Your task to perform on an android device: Search for sony triple a on ebay, select the first entry, add it to the cart, then select checkout. Image 0: 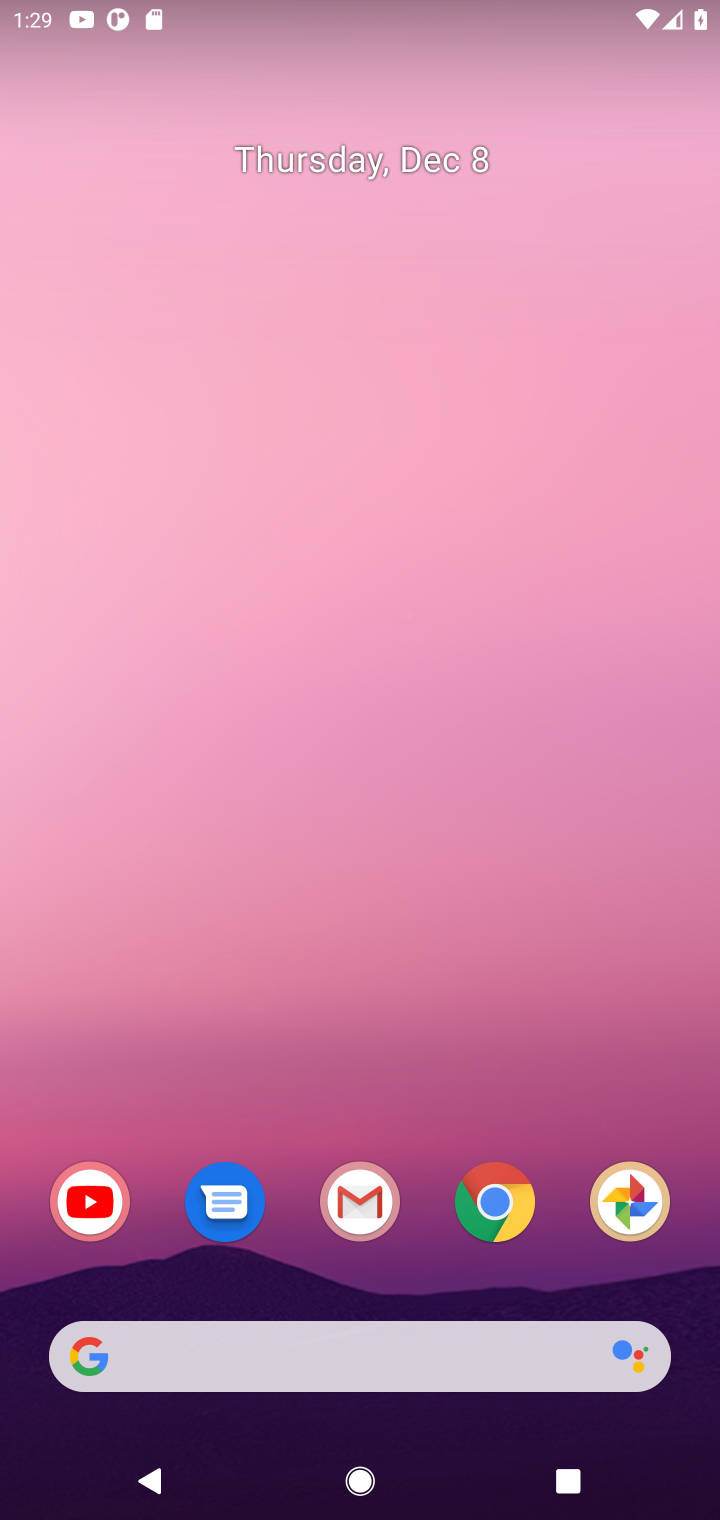
Step 0: click (484, 1219)
Your task to perform on an android device: Search for sony triple a on ebay, select the first entry, add it to the cart, then select checkout. Image 1: 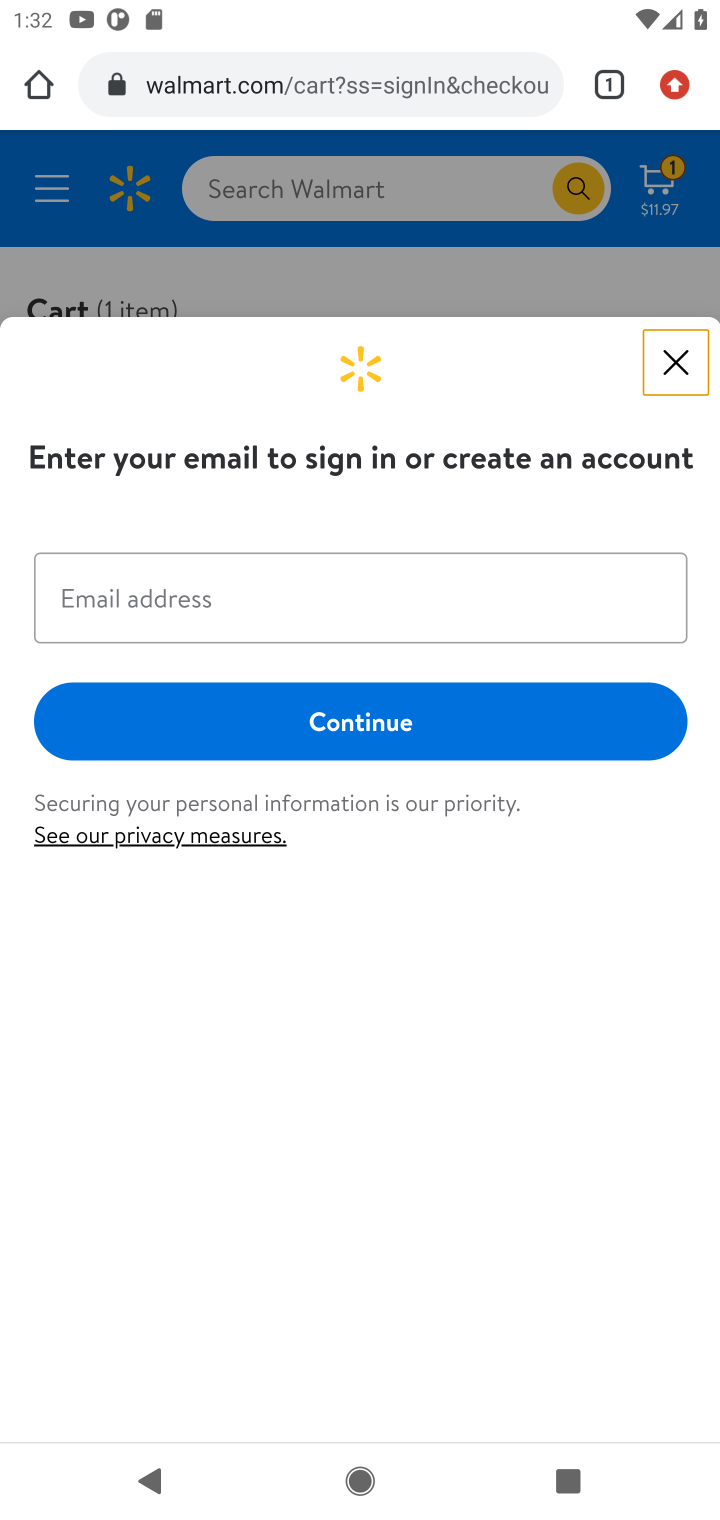
Step 1: press home button
Your task to perform on an android device: Search for sony triple a on ebay, select the first entry, add it to the cart, then select checkout. Image 2: 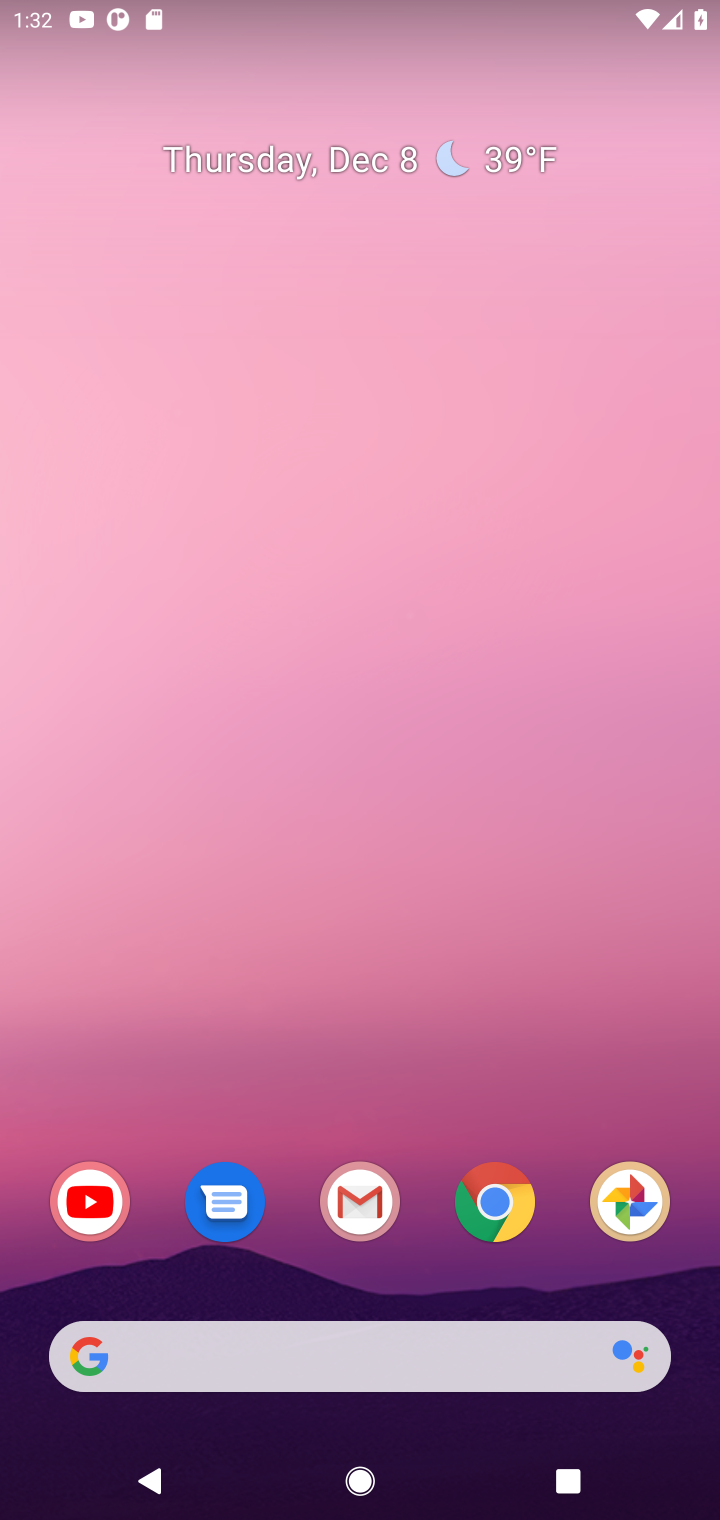
Step 2: click (506, 1207)
Your task to perform on an android device: Search for sony triple a on ebay, select the first entry, add it to the cart, then select checkout. Image 3: 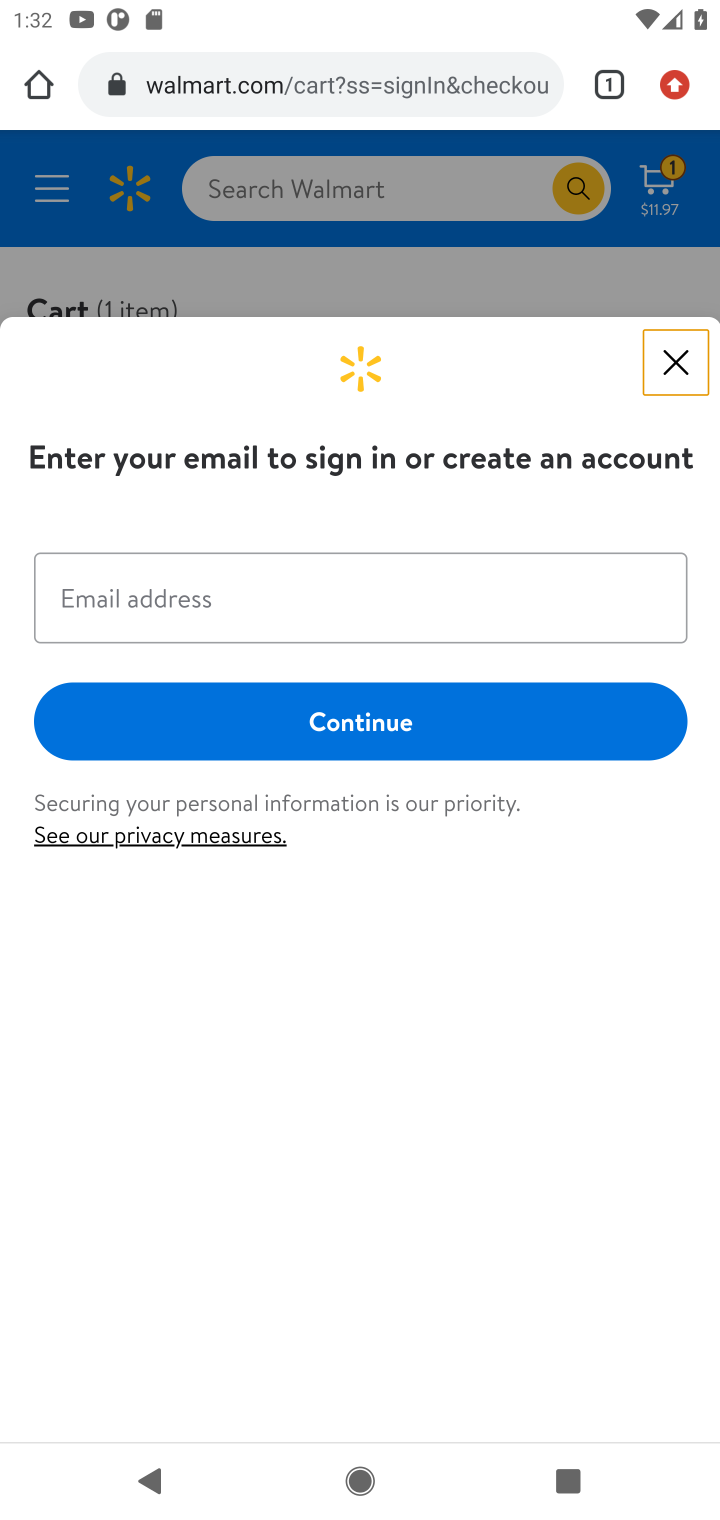
Step 3: click (481, 89)
Your task to perform on an android device: Search for sony triple a on ebay, select the first entry, add it to the cart, then select checkout. Image 4: 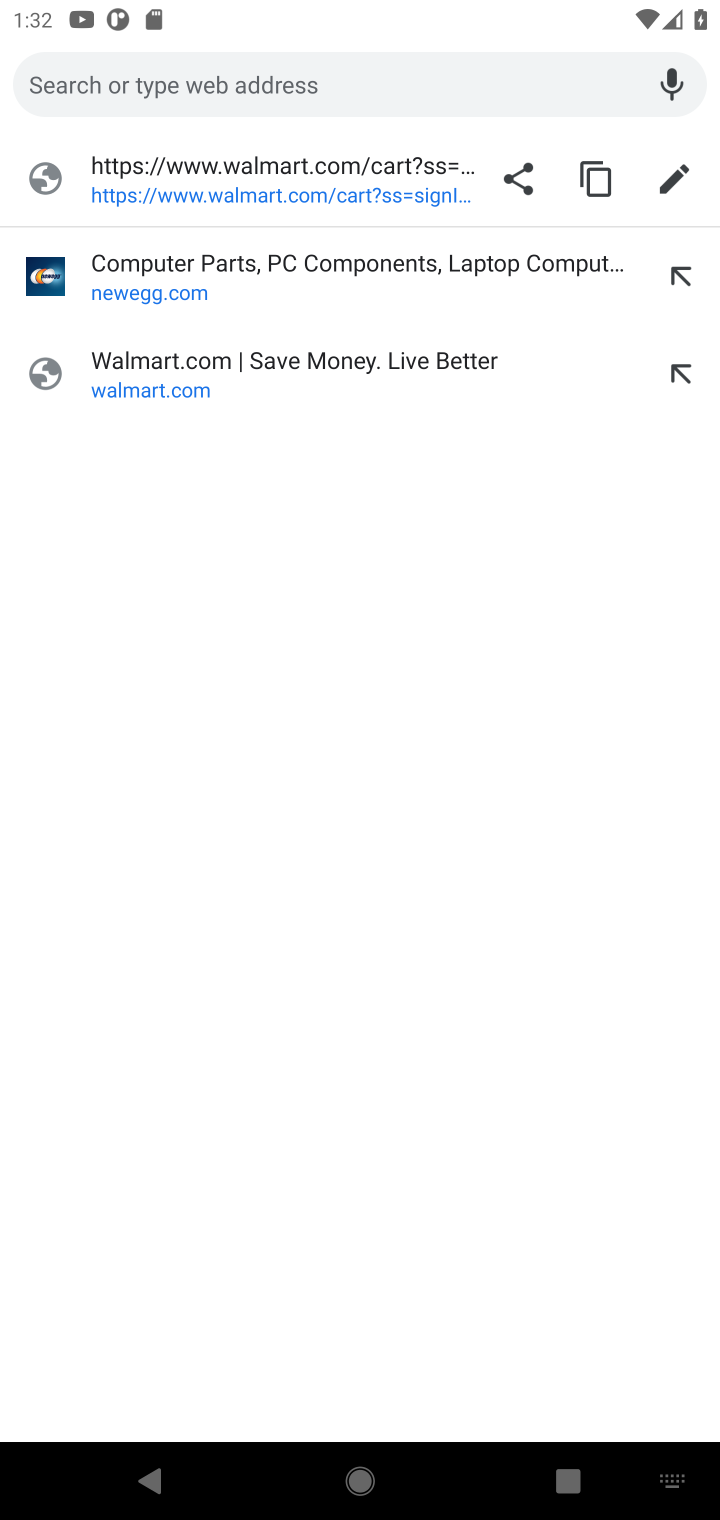
Step 4: type "ebay"
Your task to perform on an android device: Search for sony triple a on ebay, select the first entry, add it to the cart, then select checkout. Image 5: 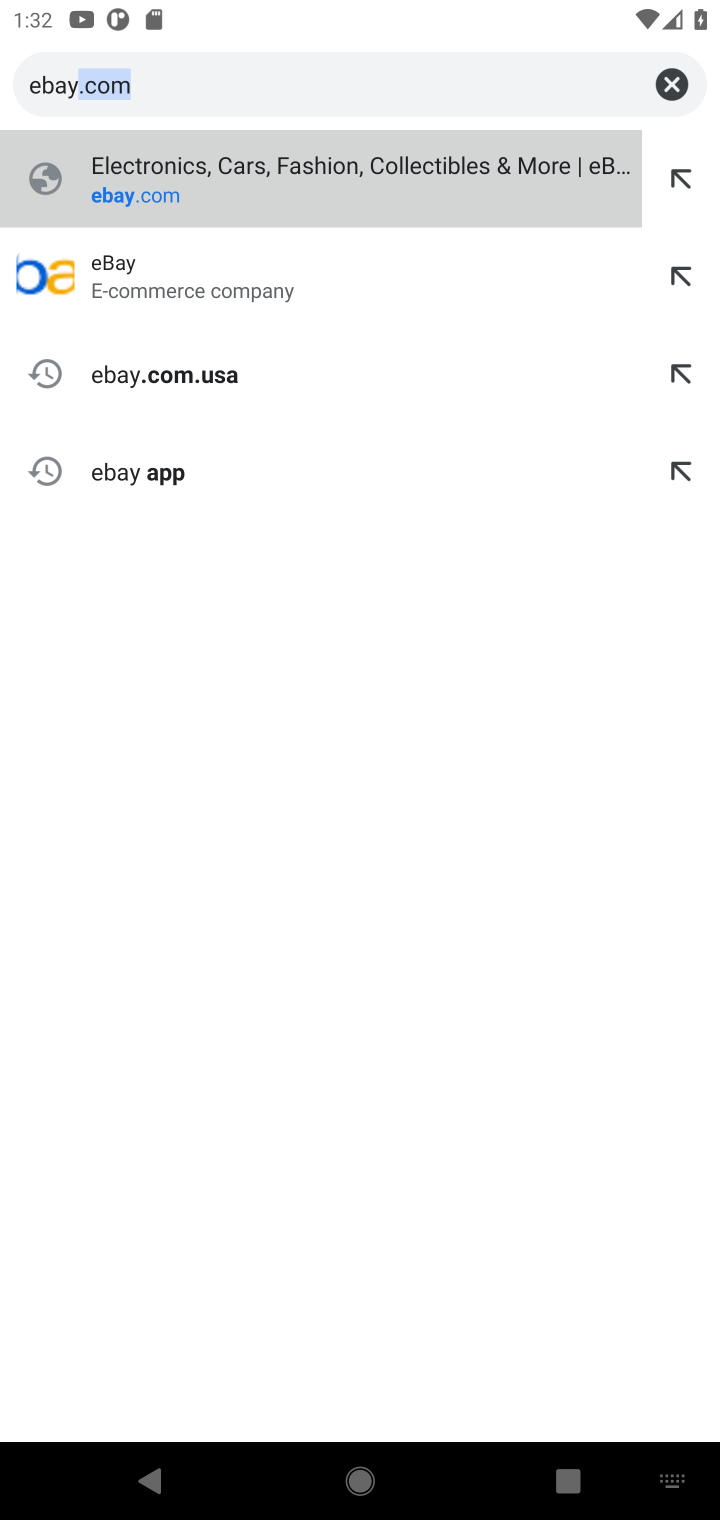
Step 5: press enter
Your task to perform on an android device: Search for sony triple a on ebay, select the first entry, add it to the cart, then select checkout. Image 6: 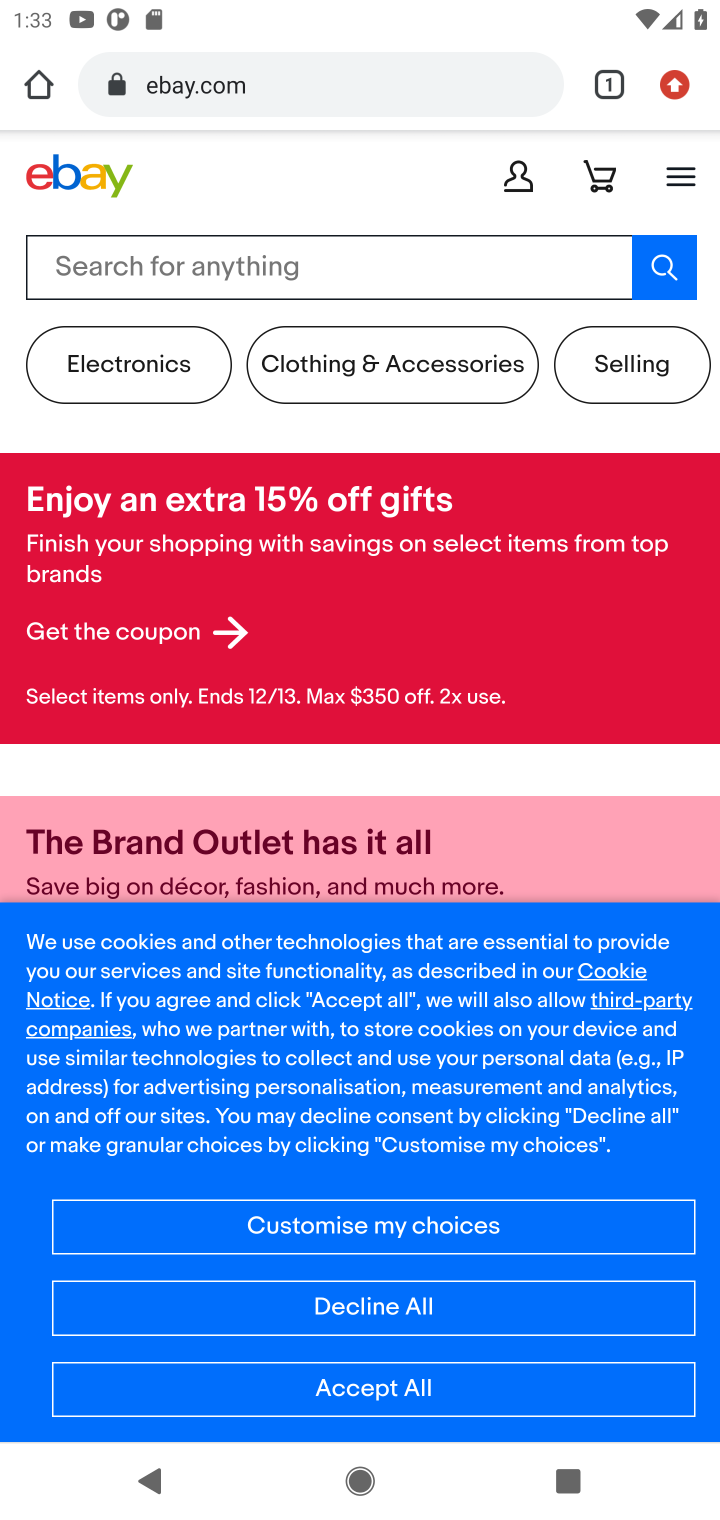
Step 6: click (470, 268)
Your task to perform on an android device: Search for sony triple a on ebay, select the first entry, add it to the cart, then select checkout. Image 7: 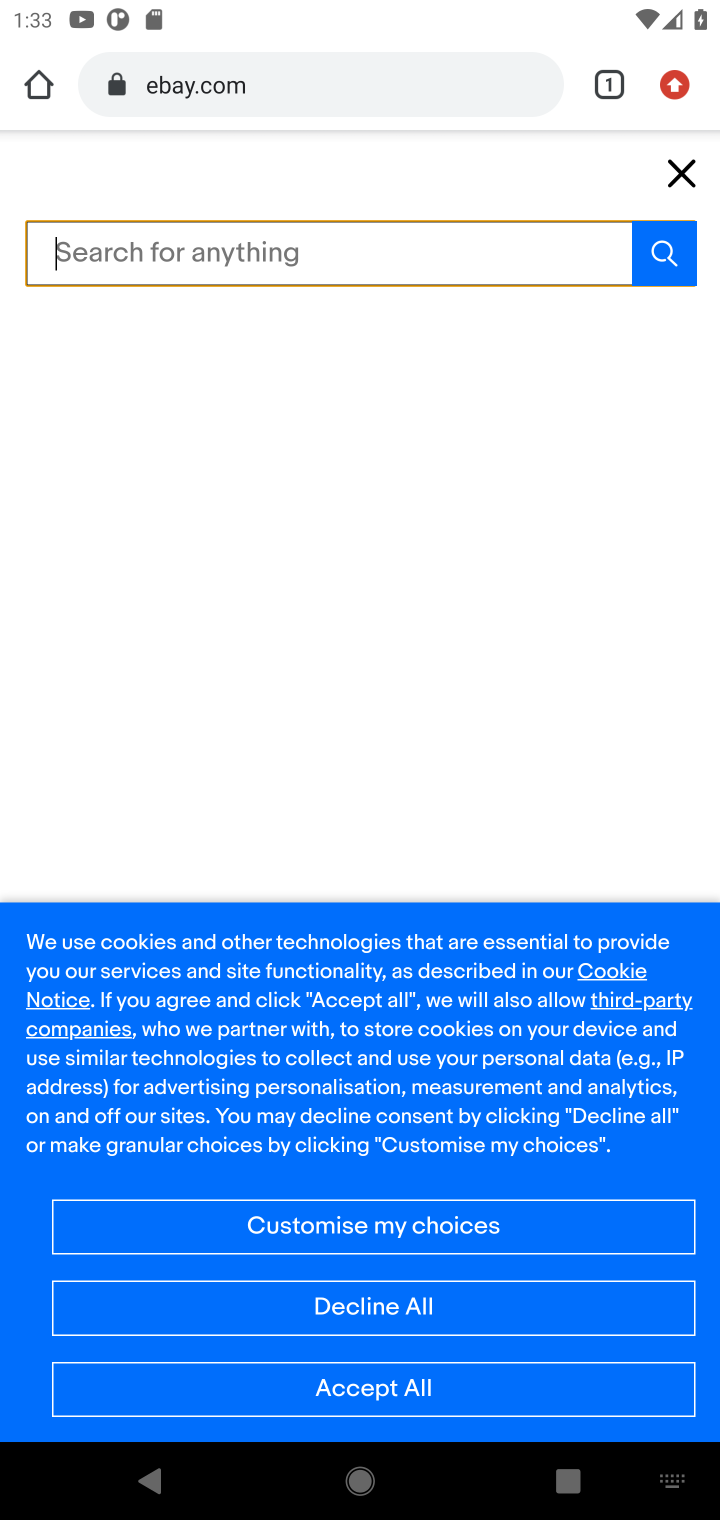
Step 7: type " sony triple a "
Your task to perform on an android device: Search for sony triple a on ebay, select the first entry, add it to the cart, then select checkout. Image 8: 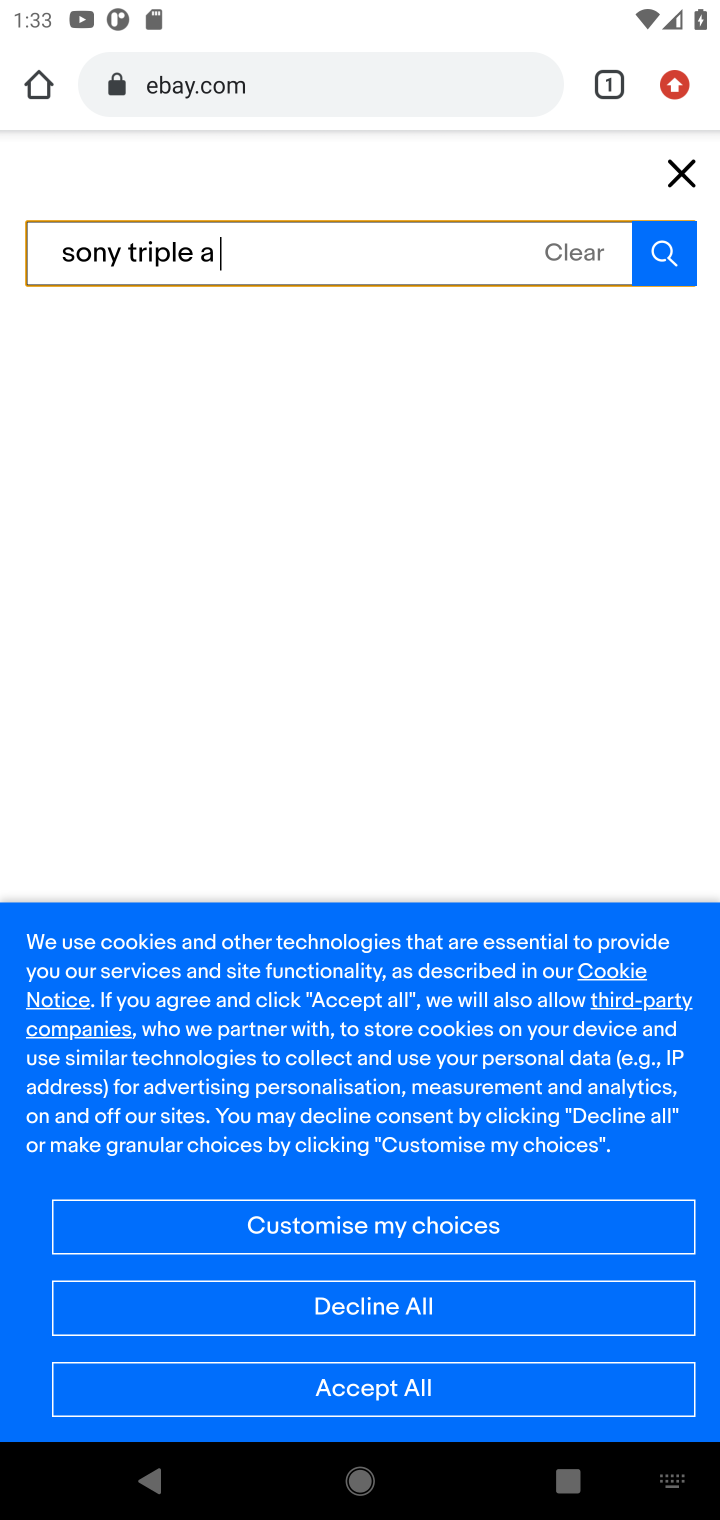
Step 8: press enter
Your task to perform on an android device: Search for sony triple a on ebay, select the first entry, add it to the cart, then select checkout. Image 9: 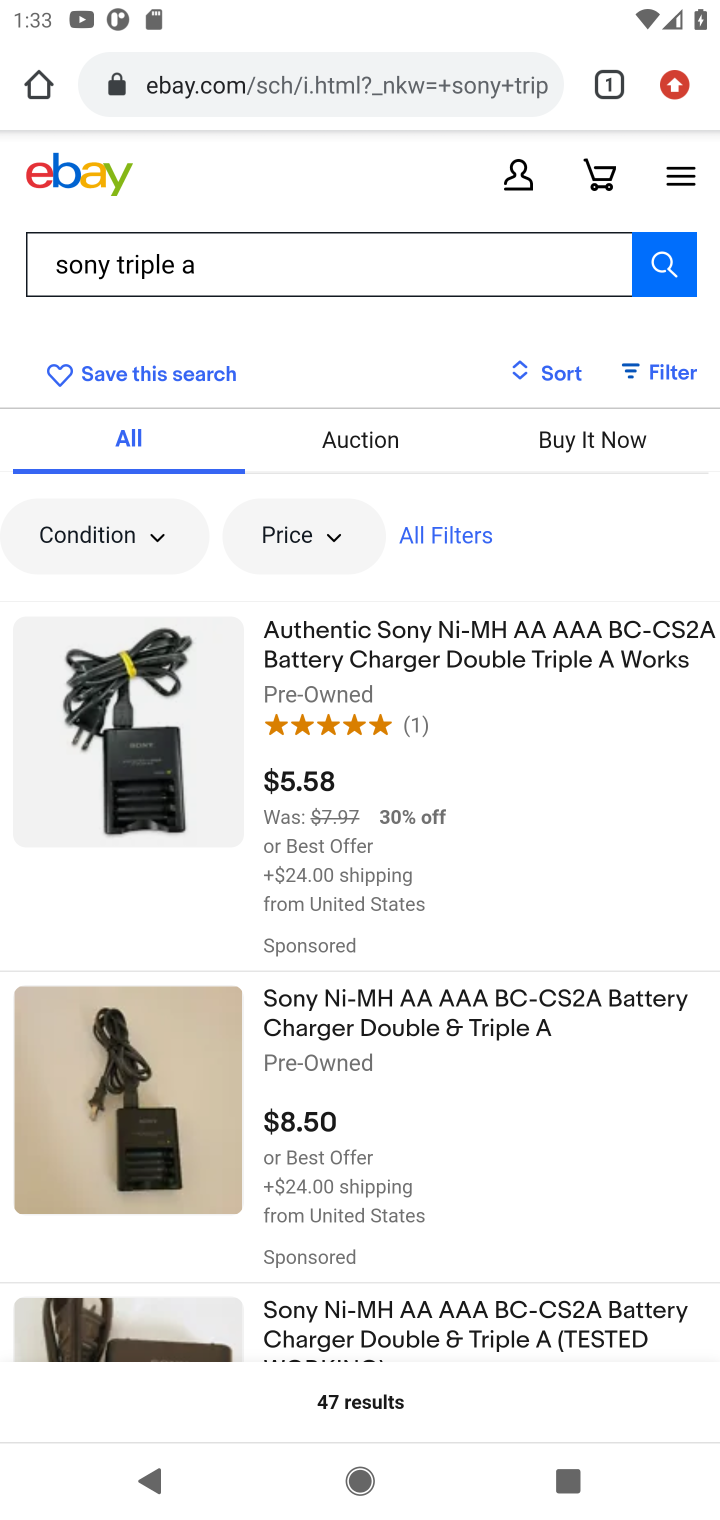
Step 9: click (142, 751)
Your task to perform on an android device: Search for sony triple a on ebay, select the first entry, add it to the cart, then select checkout. Image 10: 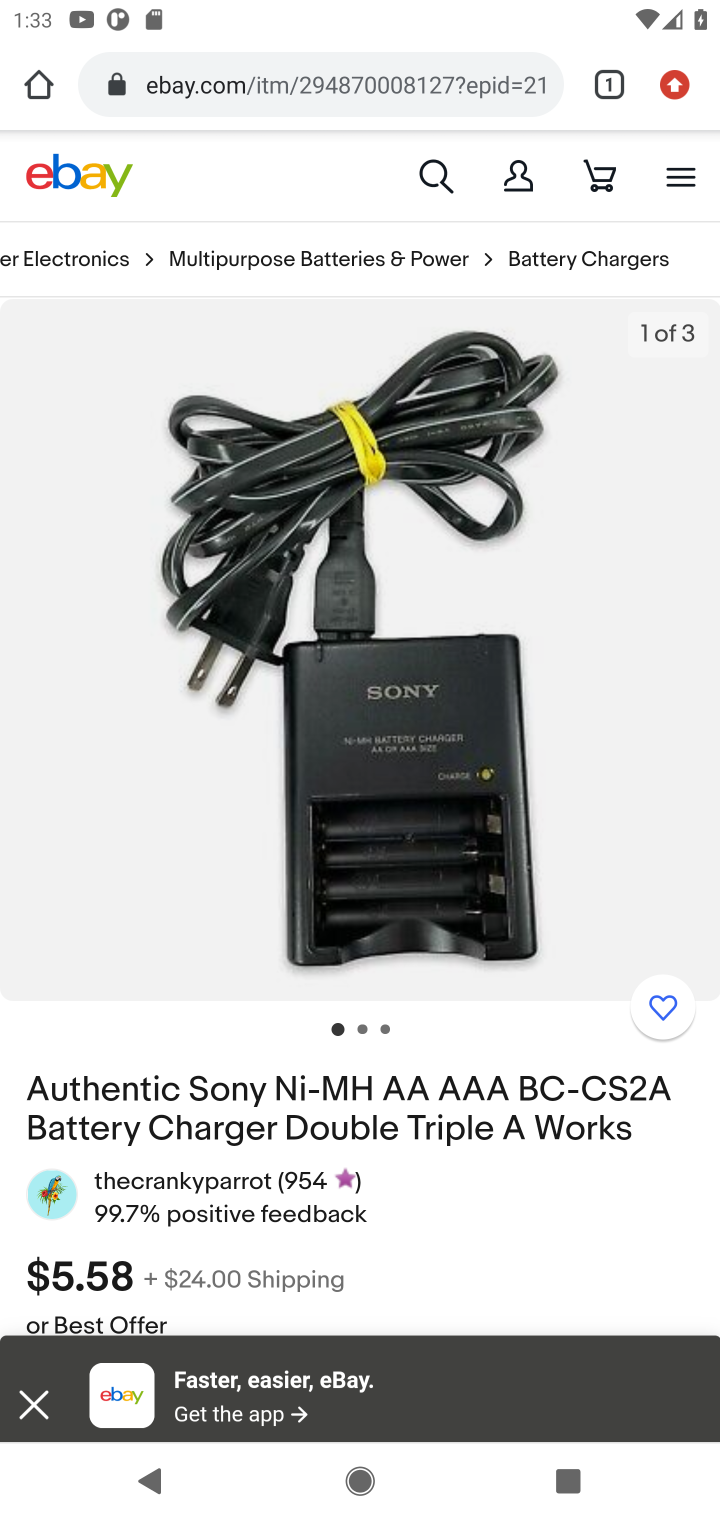
Step 10: drag from (554, 737) to (581, 627)
Your task to perform on an android device: Search for sony triple a on ebay, select the first entry, add it to the cart, then select checkout. Image 11: 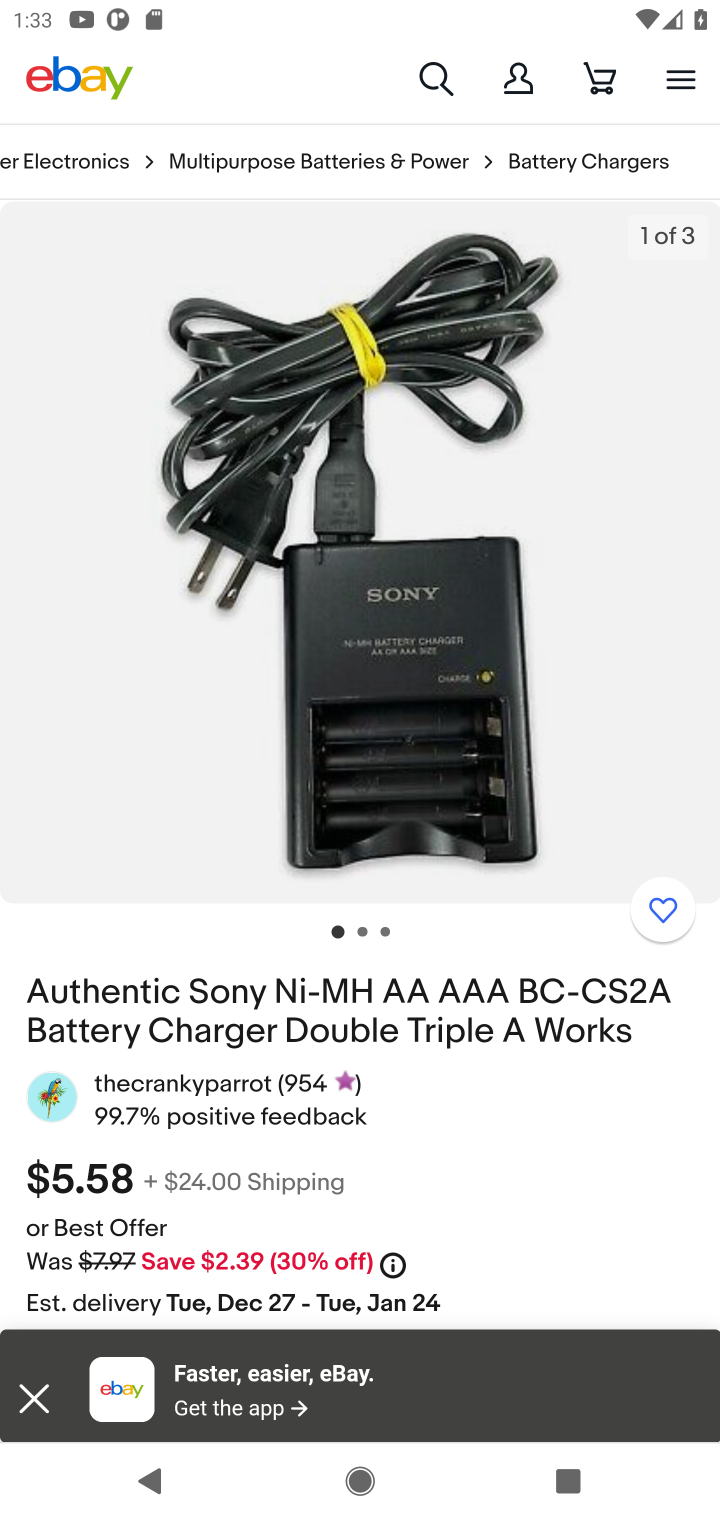
Step 11: drag from (531, 1181) to (569, 674)
Your task to perform on an android device: Search for sony triple a on ebay, select the first entry, add it to the cart, then select checkout. Image 12: 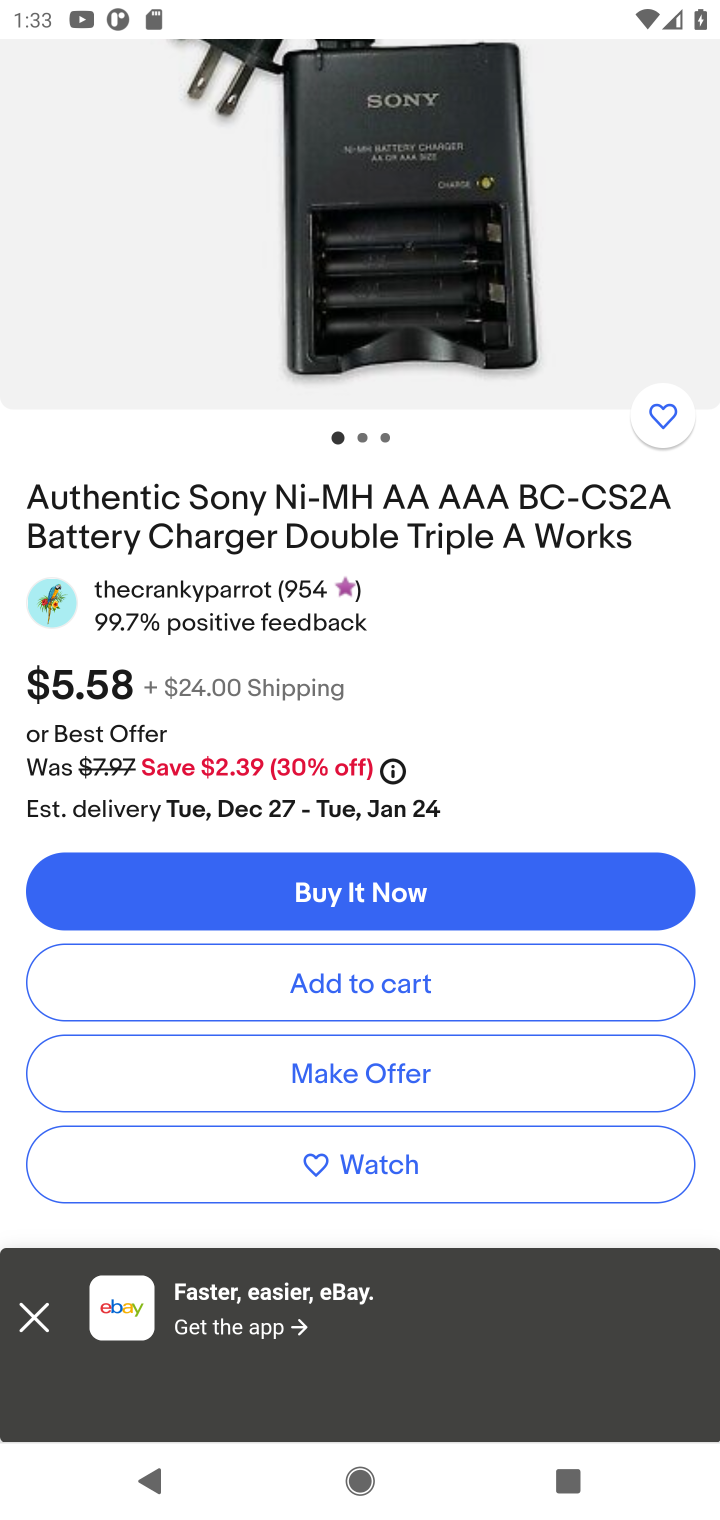
Step 12: click (440, 978)
Your task to perform on an android device: Search for sony triple a on ebay, select the first entry, add it to the cart, then select checkout. Image 13: 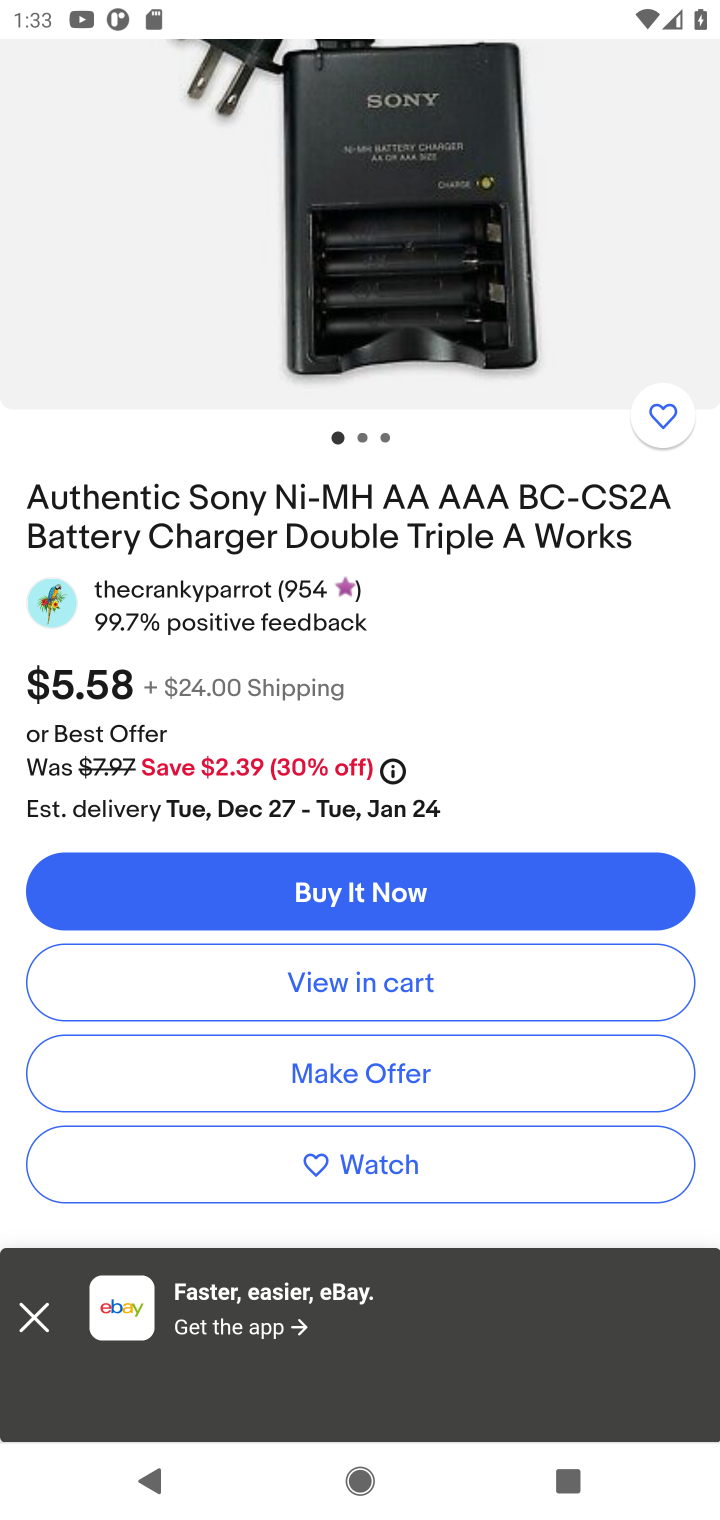
Step 13: click (440, 978)
Your task to perform on an android device: Search for sony triple a on ebay, select the first entry, add it to the cart, then select checkout. Image 14: 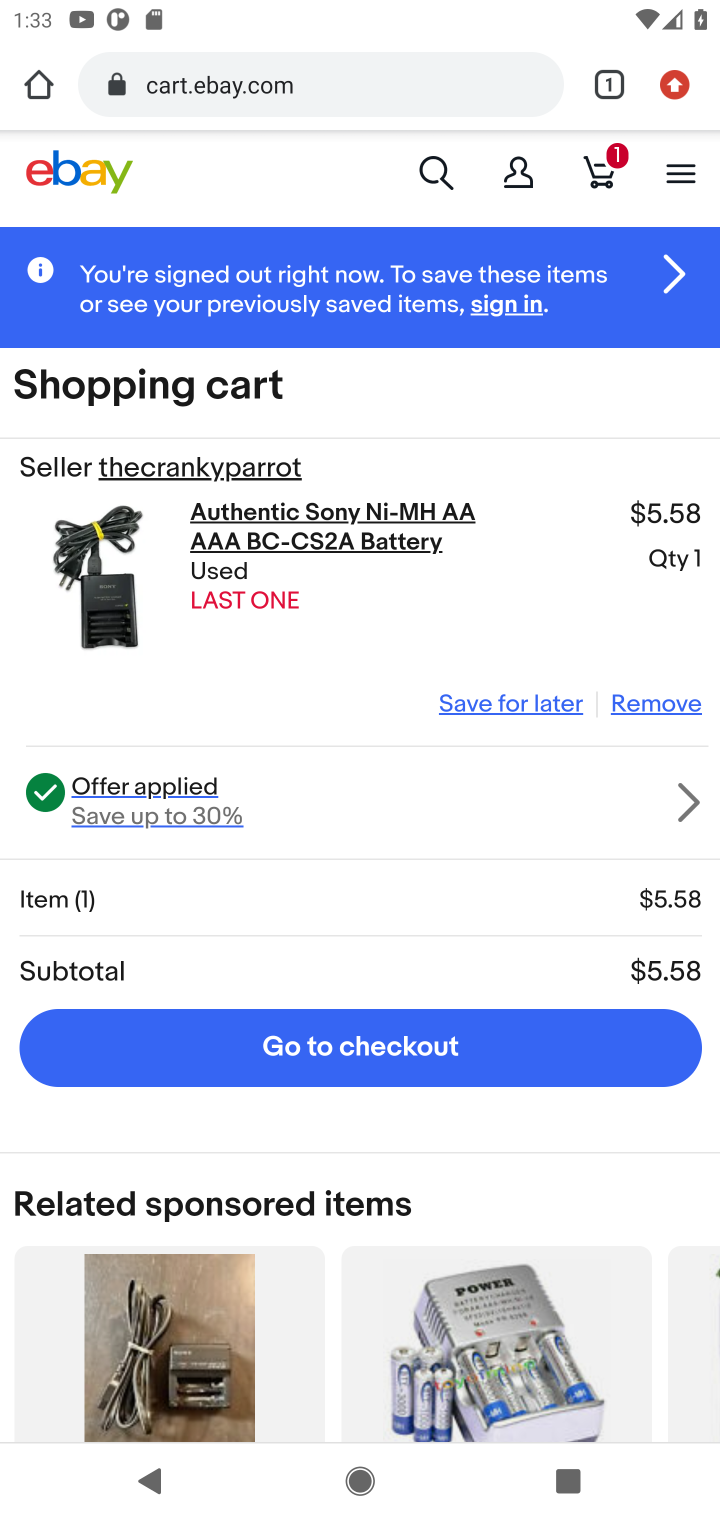
Step 14: click (415, 1036)
Your task to perform on an android device: Search for sony triple a on ebay, select the first entry, add it to the cart, then select checkout. Image 15: 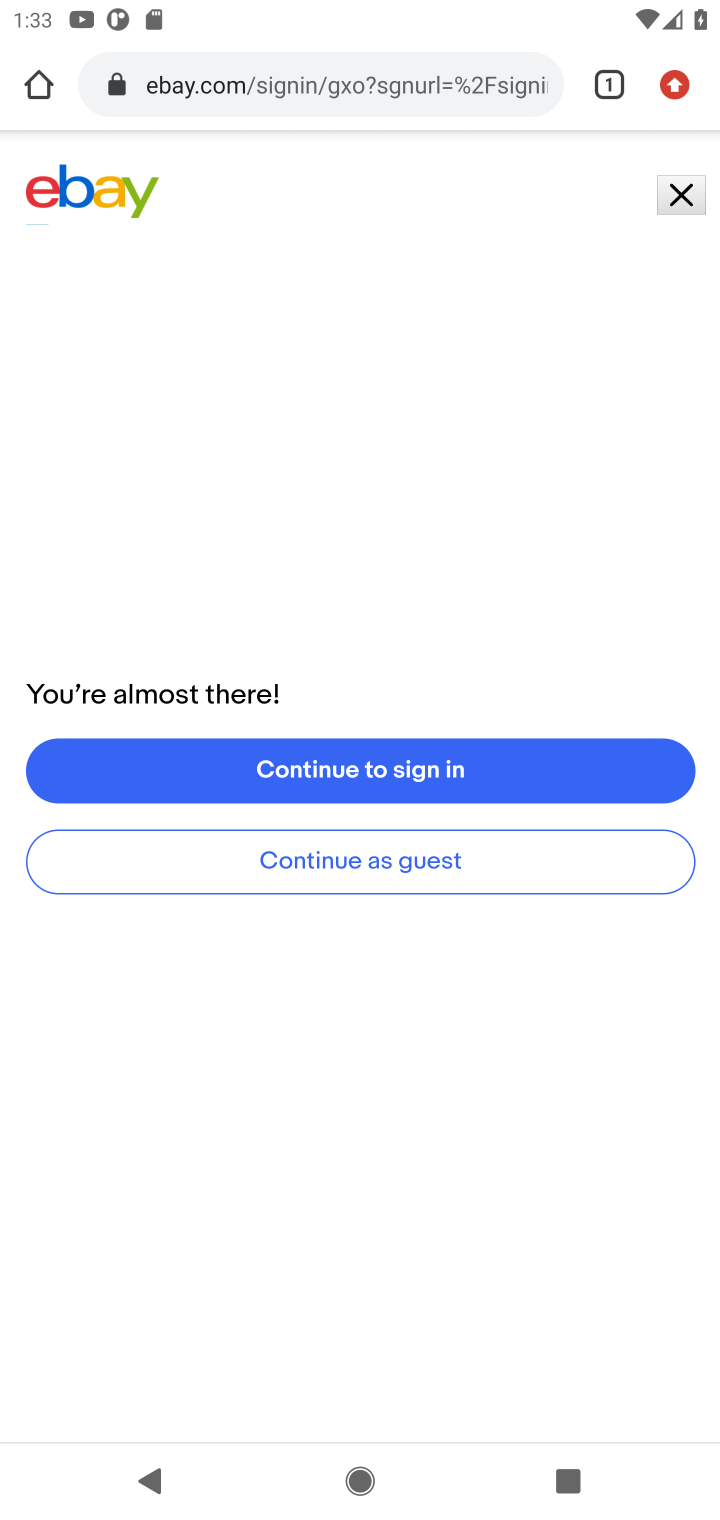
Step 15: task complete